Your task to perform on an android device: turn on priority inbox in the gmail app Image 0: 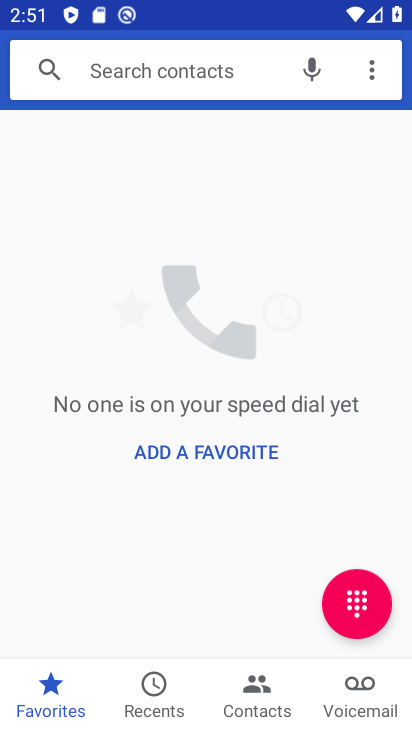
Step 0: press home button
Your task to perform on an android device: turn on priority inbox in the gmail app Image 1: 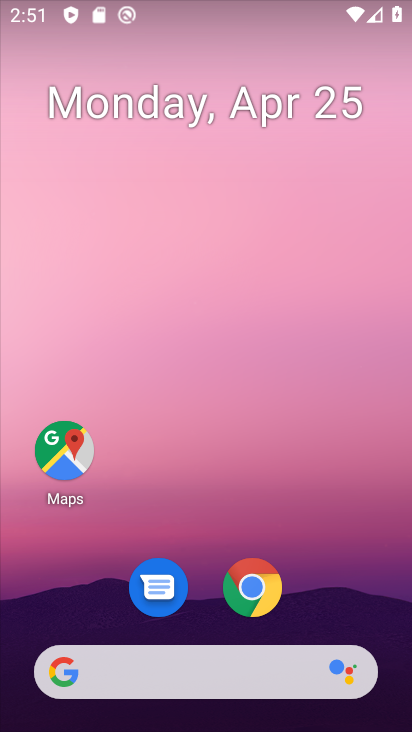
Step 1: drag from (212, 606) to (278, 197)
Your task to perform on an android device: turn on priority inbox in the gmail app Image 2: 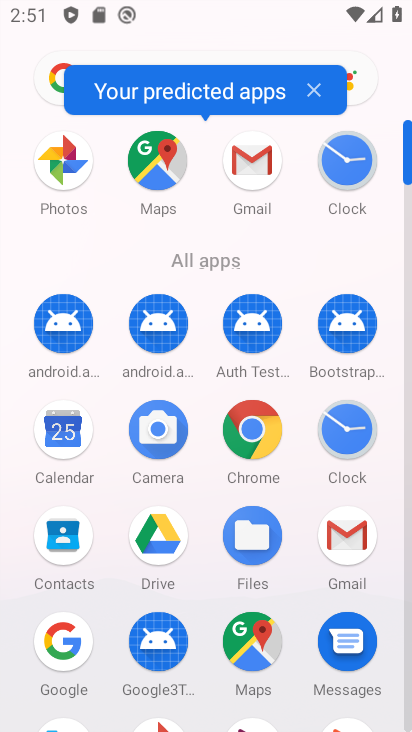
Step 2: click (252, 165)
Your task to perform on an android device: turn on priority inbox in the gmail app Image 3: 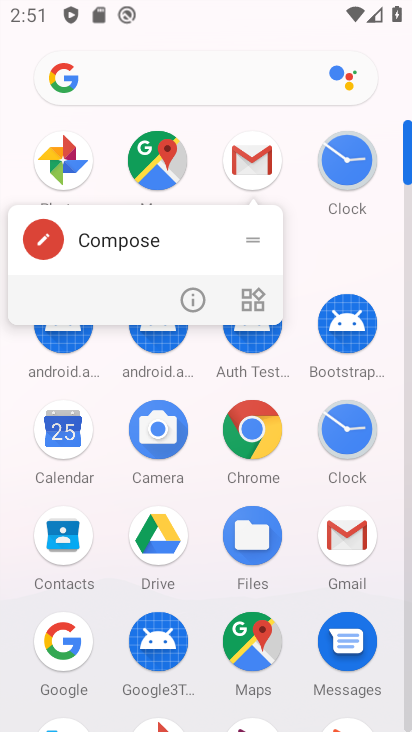
Step 3: click (252, 165)
Your task to perform on an android device: turn on priority inbox in the gmail app Image 4: 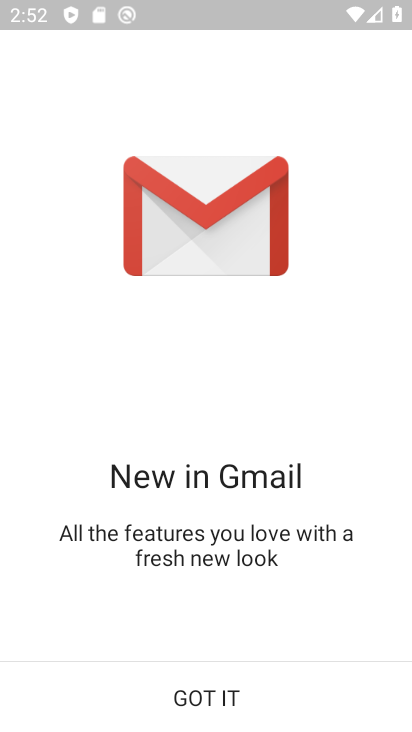
Step 4: click (204, 691)
Your task to perform on an android device: turn on priority inbox in the gmail app Image 5: 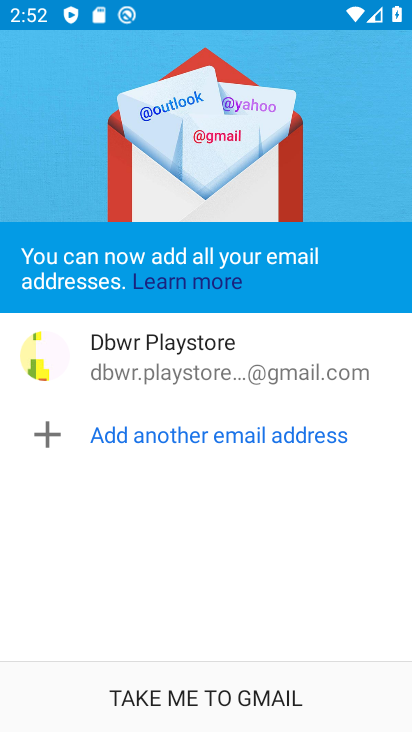
Step 5: click (198, 692)
Your task to perform on an android device: turn on priority inbox in the gmail app Image 6: 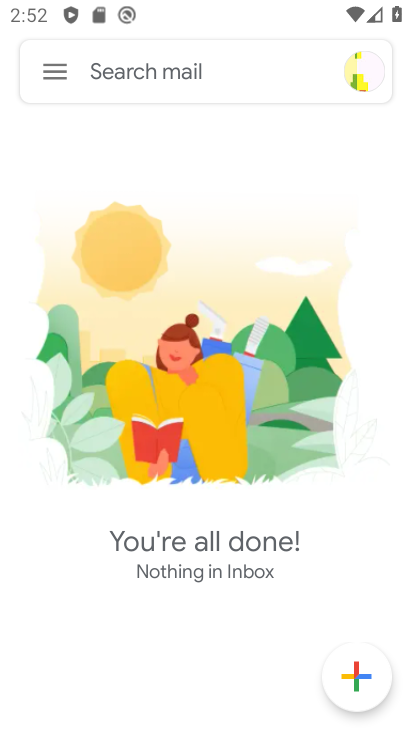
Step 6: click (47, 77)
Your task to perform on an android device: turn on priority inbox in the gmail app Image 7: 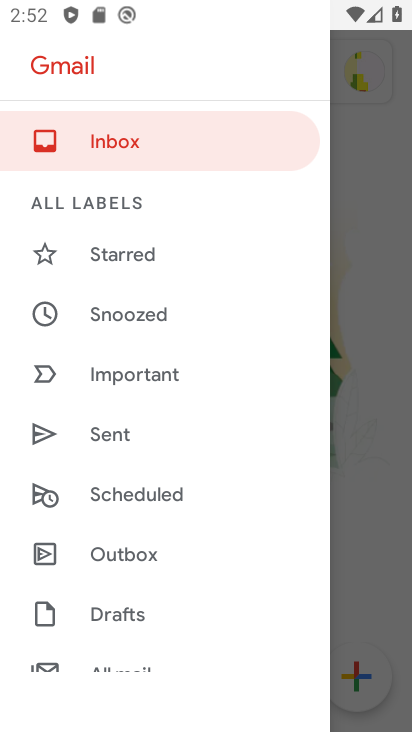
Step 7: drag from (75, 554) to (72, 134)
Your task to perform on an android device: turn on priority inbox in the gmail app Image 8: 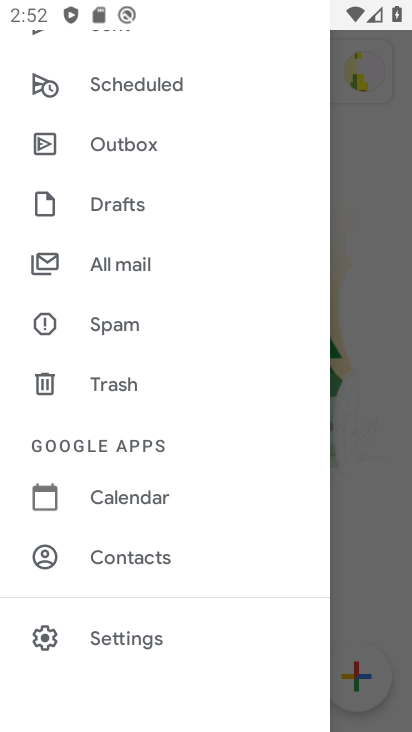
Step 8: click (139, 639)
Your task to perform on an android device: turn on priority inbox in the gmail app Image 9: 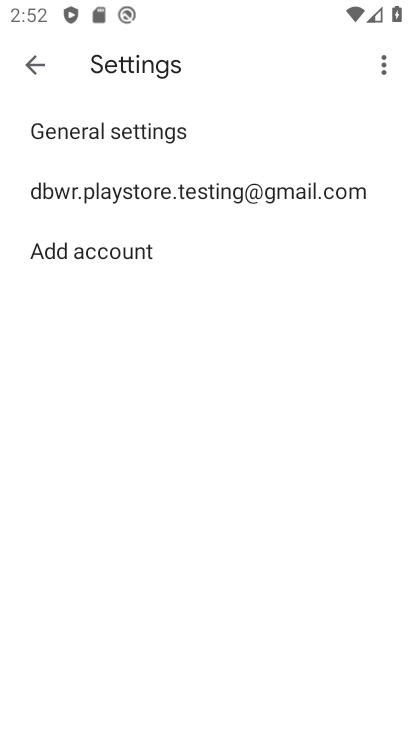
Step 9: click (136, 189)
Your task to perform on an android device: turn on priority inbox in the gmail app Image 10: 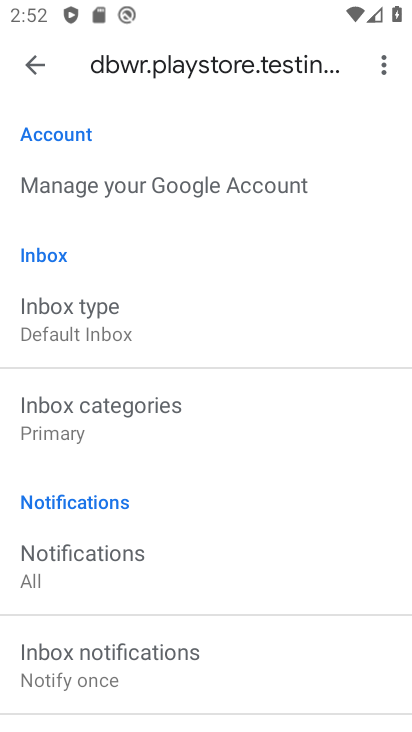
Step 10: click (90, 319)
Your task to perform on an android device: turn on priority inbox in the gmail app Image 11: 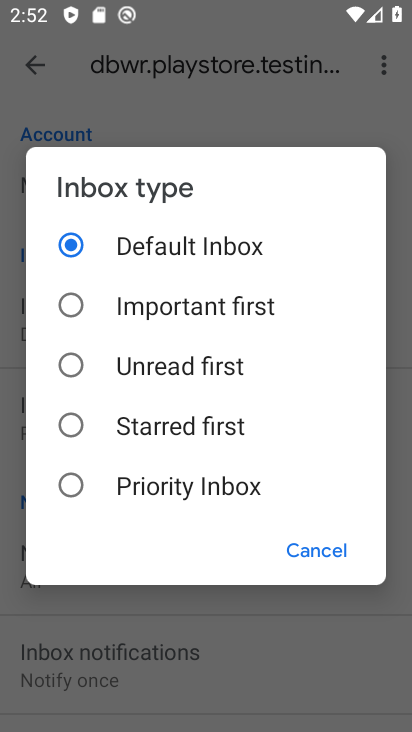
Step 11: click (62, 486)
Your task to perform on an android device: turn on priority inbox in the gmail app Image 12: 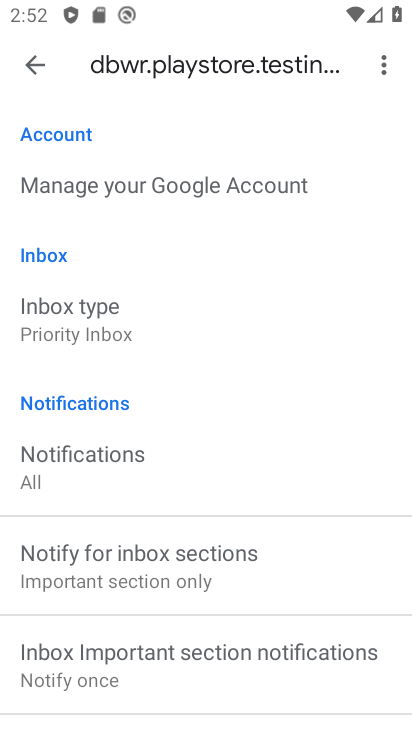
Step 12: task complete